Your task to perform on an android device: turn pop-ups on in chrome Image 0: 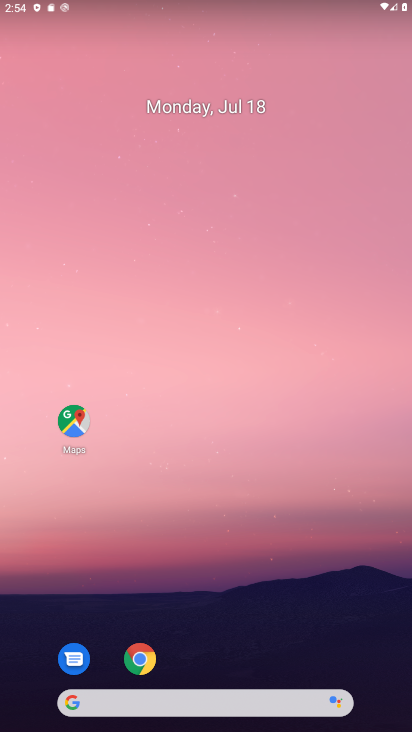
Step 0: drag from (257, 633) to (314, 106)
Your task to perform on an android device: turn pop-ups on in chrome Image 1: 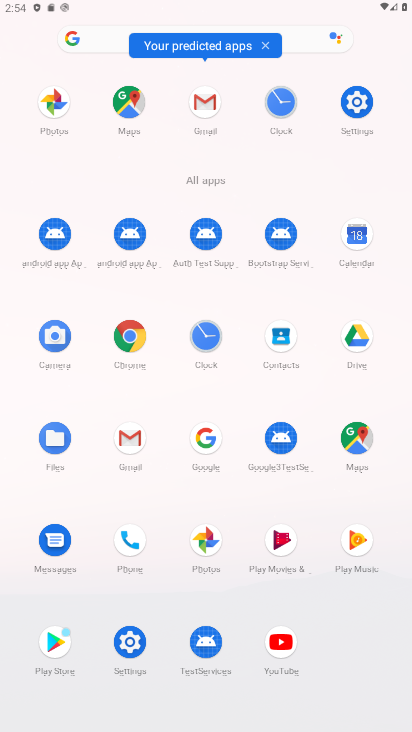
Step 1: click (120, 334)
Your task to perform on an android device: turn pop-ups on in chrome Image 2: 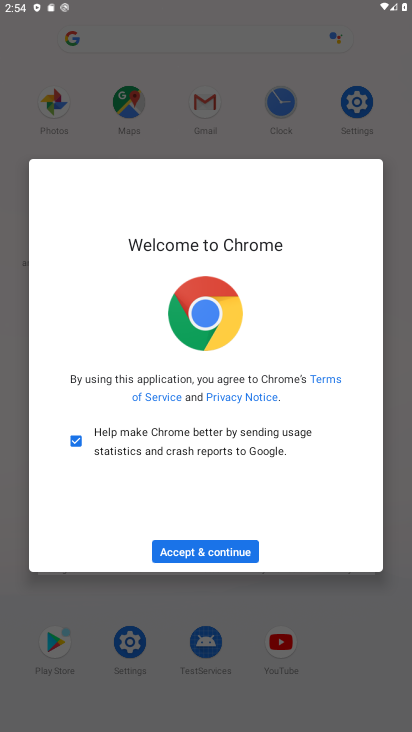
Step 2: click (256, 551)
Your task to perform on an android device: turn pop-ups on in chrome Image 3: 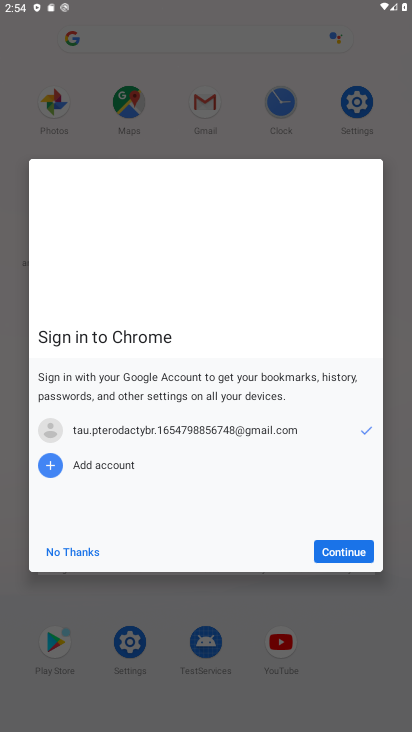
Step 3: click (352, 546)
Your task to perform on an android device: turn pop-ups on in chrome Image 4: 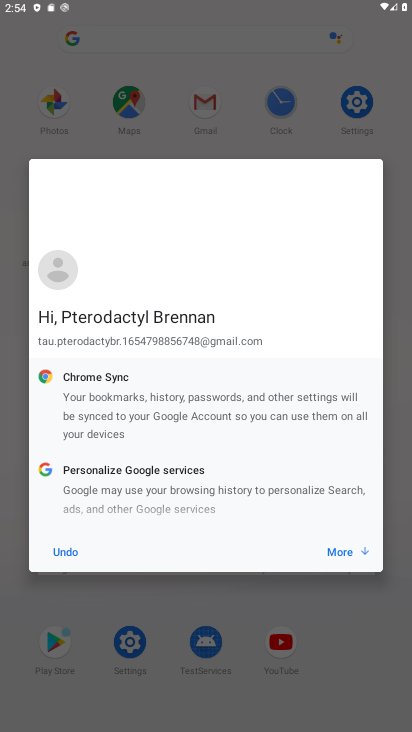
Step 4: click (340, 548)
Your task to perform on an android device: turn pop-ups on in chrome Image 5: 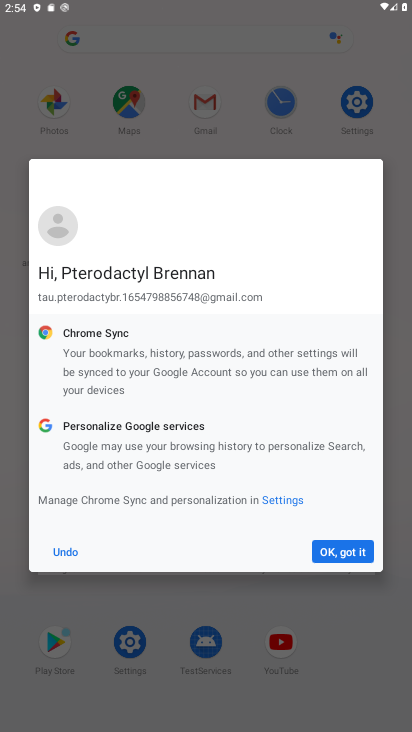
Step 5: click (346, 560)
Your task to perform on an android device: turn pop-ups on in chrome Image 6: 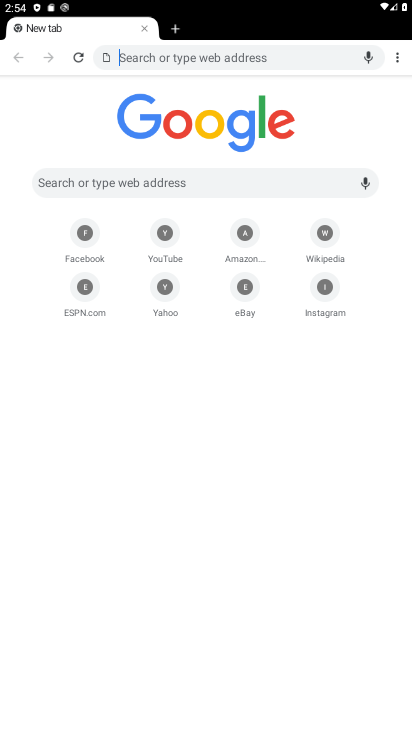
Step 6: drag from (394, 61) to (328, 253)
Your task to perform on an android device: turn pop-ups on in chrome Image 7: 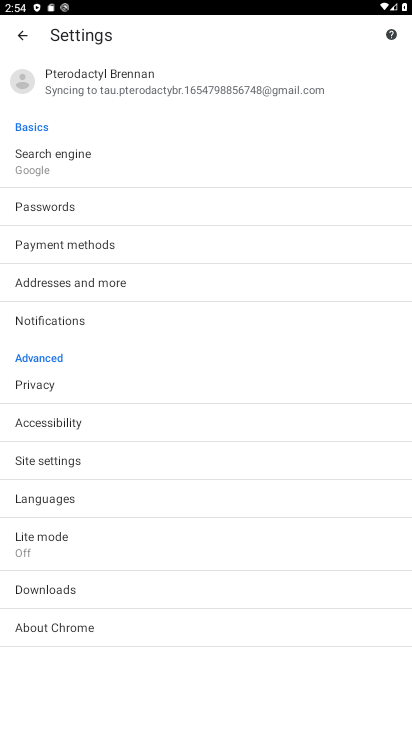
Step 7: click (81, 464)
Your task to perform on an android device: turn pop-ups on in chrome Image 8: 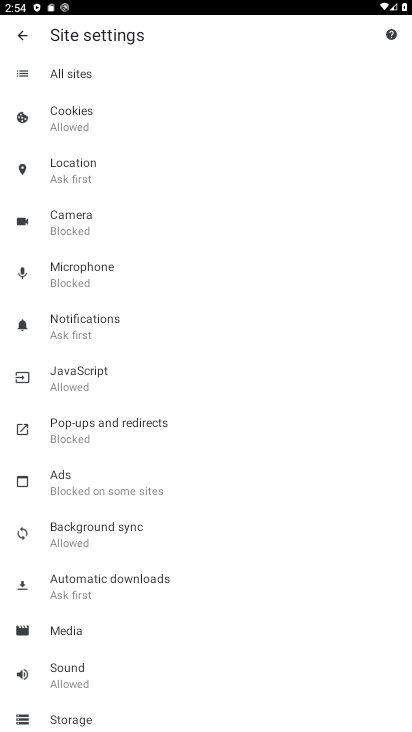
Step 8: click (99, 425)
Your task to perform on an android device: turn pop-ups on in chrome Image 9: 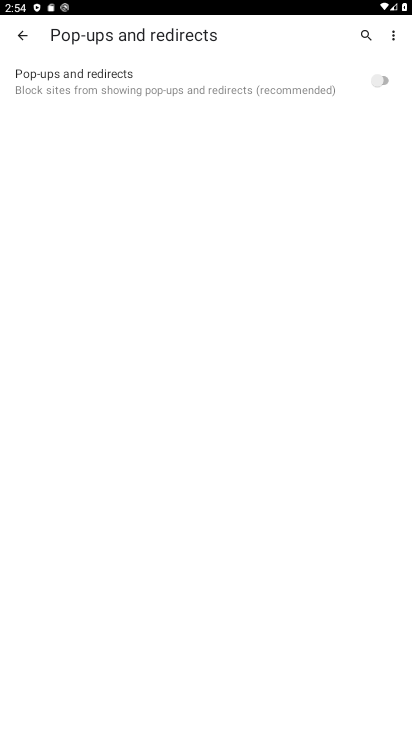
Step 9: click (392, 77)
Your task to perform on an android device: turn pop-ups on in chrome Image 10: 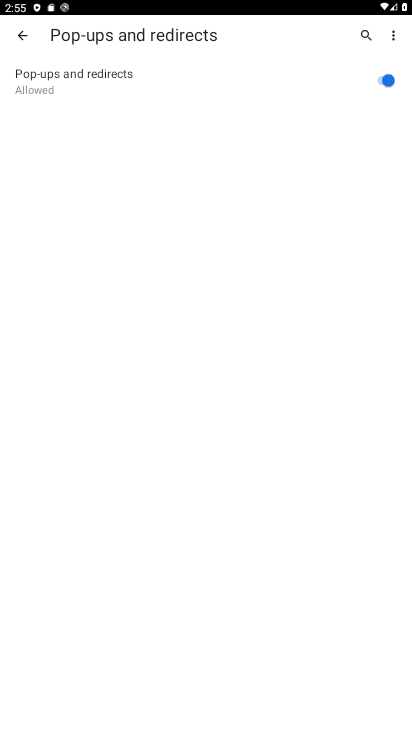
Step 10: task complete